Your task to perform on an android device: turn on data saver in the chrome app Image 0: 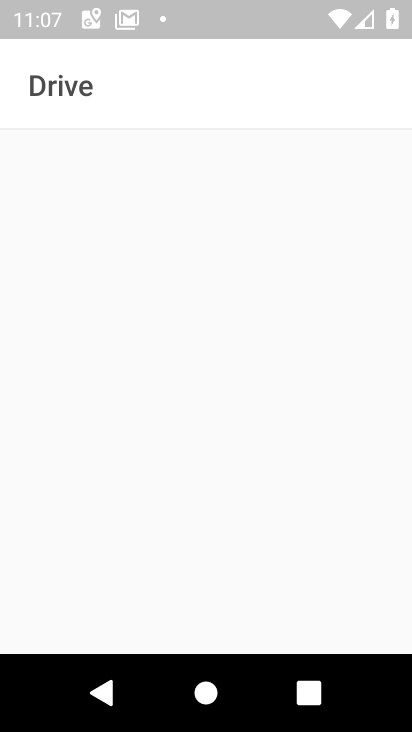
Step 0: press home button
Your task to perform on an android device: turn on data saver in the chrome app Image 1: 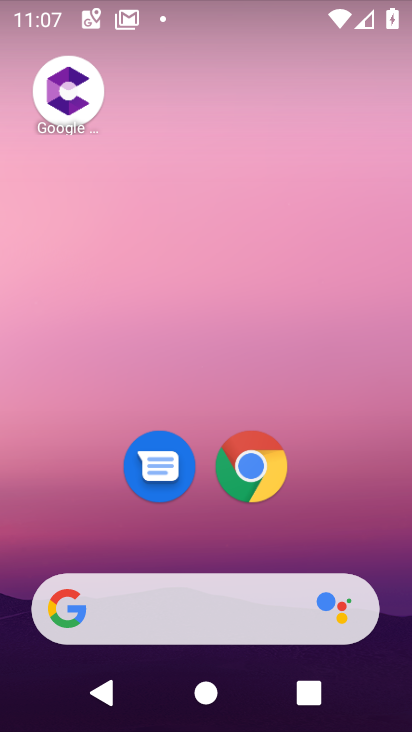
Step 1: click (255, 491)
Your task to perform on an android device: turn on data saver in the chrome app Image 2: 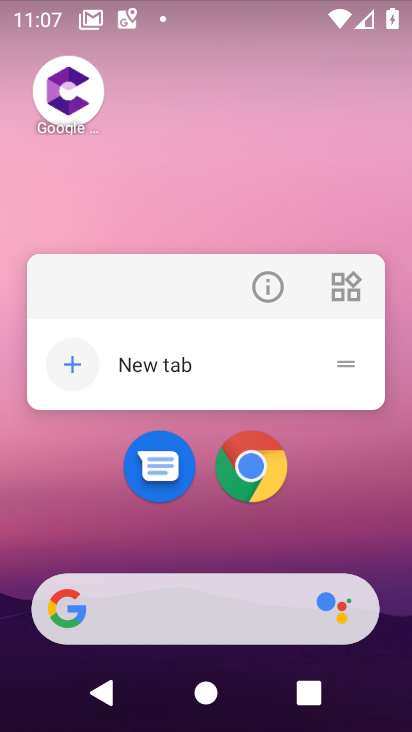
Step 2: click (286, 497)
Your task to perform on an android device: turn on data saver in the chrome app Image 3: 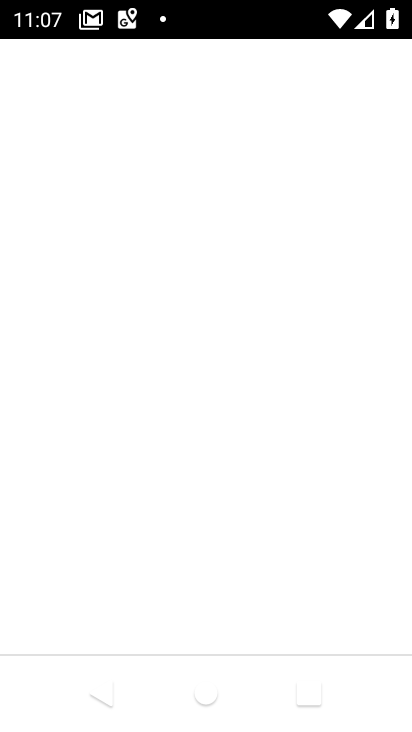
Step 3: click (244, 471)
Your task to perform on an android device: turn on data saver in the chrome app Image 4: 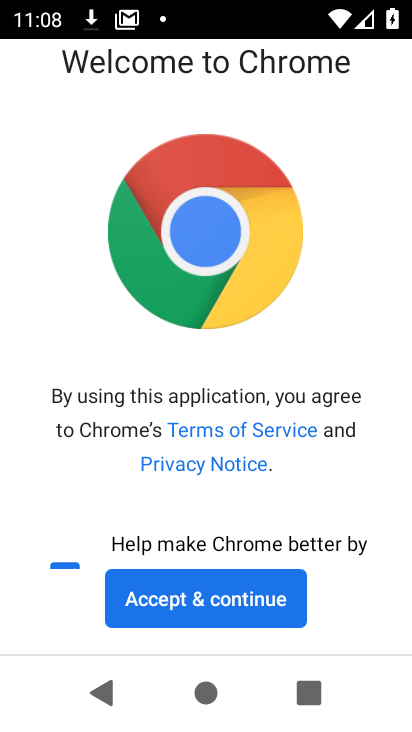
Step 4: click (168, 605)
Your task to perform on an android device: turn on data saver in the chrome app Image 5: 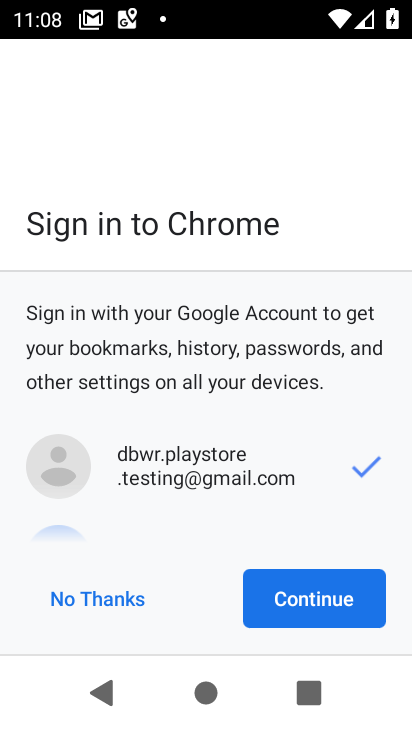
Step 5: click (273, 591)
Your task to perform on an android device: turn on data saver in the chrome app Image 6: 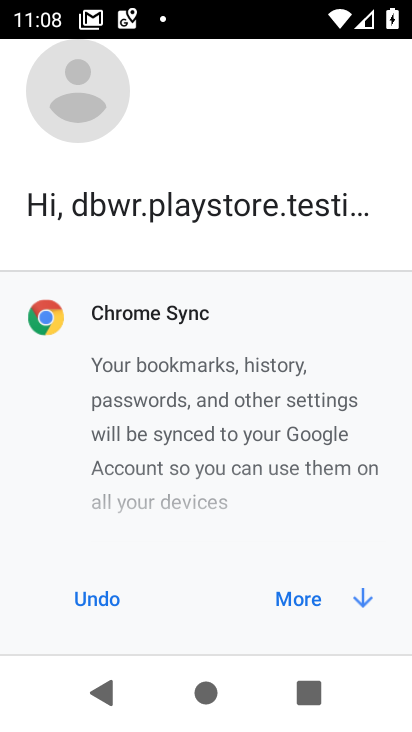
Step 6: click (281, 599)
Your task to perform on an android device: turn on data saver in the chrome app Image 7: 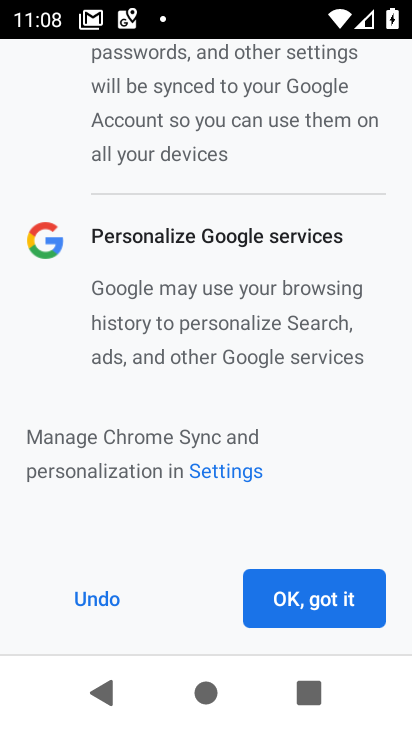
Step 7: click (284, 593)
Your task to perform on an android device: turn on data saver in the chrome app Image 8: 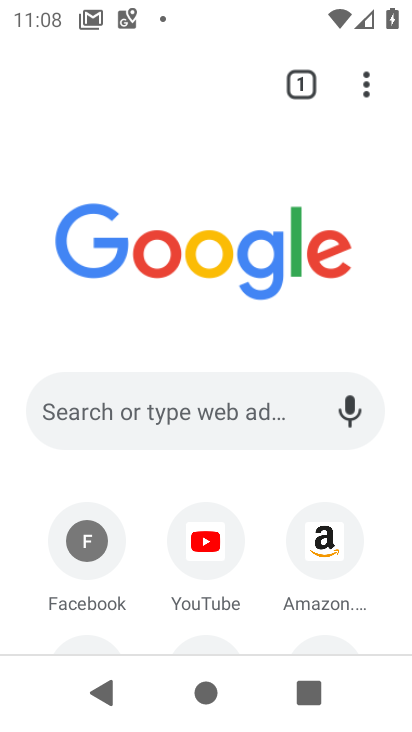
Step 8: click (361, 91)
Your task to perform on an android device: turn on data saver in the chrome app Image 9: 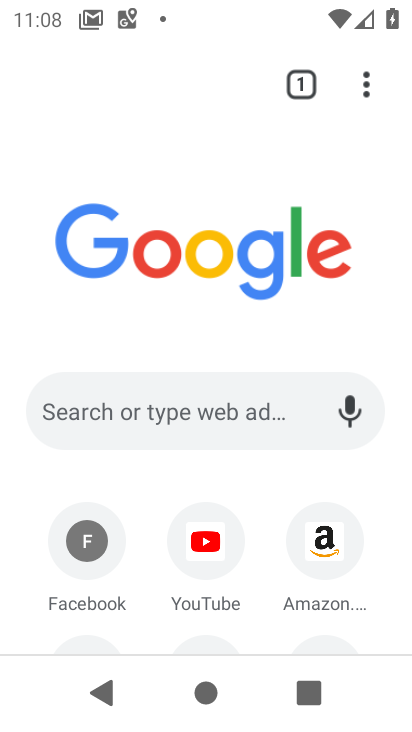
Step 9: click (370, 91)
Your task to perform on an android device: turn on data saver in the chrome app Image 10: 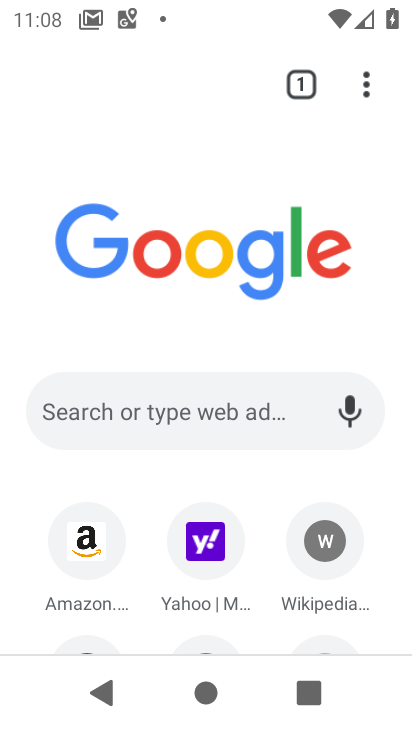
Step 10: click (367, 92)
Your task to perform on an android device: turn on data saver in the chrome app Image 11: 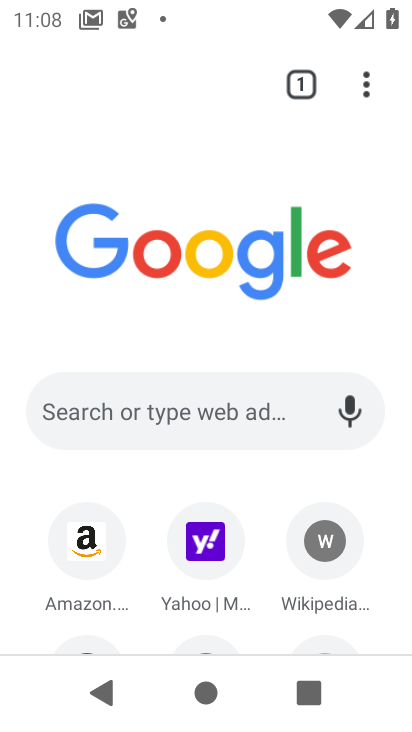
Step 11: click (363, 74)
Your task to perform on an android device: turn on data saver in the chrome app Image 12: 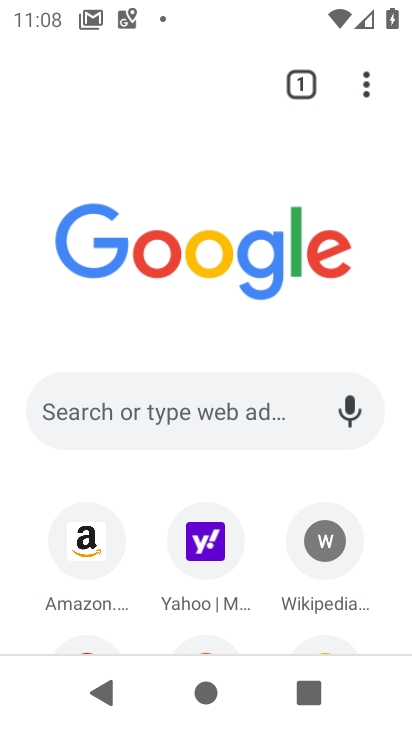
Step 12: click (371, 82)
Your task to perform on an android device: turn on data saver in the chrome app Image 13: 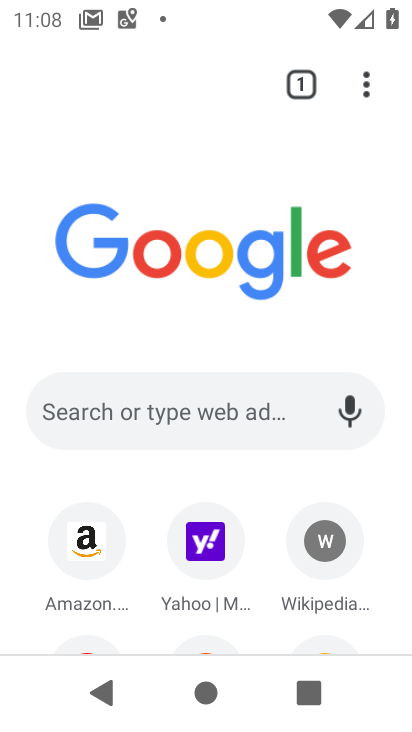
Step 13: click (362, 88)
Your task to perform on an android device: turn on data saver in the chrome app Image 14: 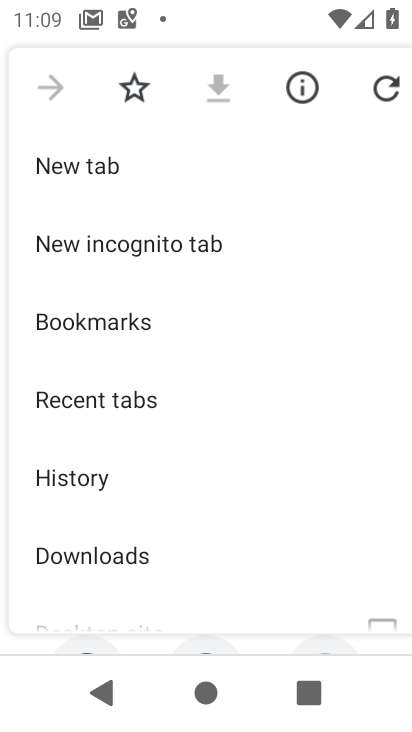
Step 14: drag from (230, 499) to (179, 213)
Your task to perform on an android device: turn on data saver in the chrome app Image 15: 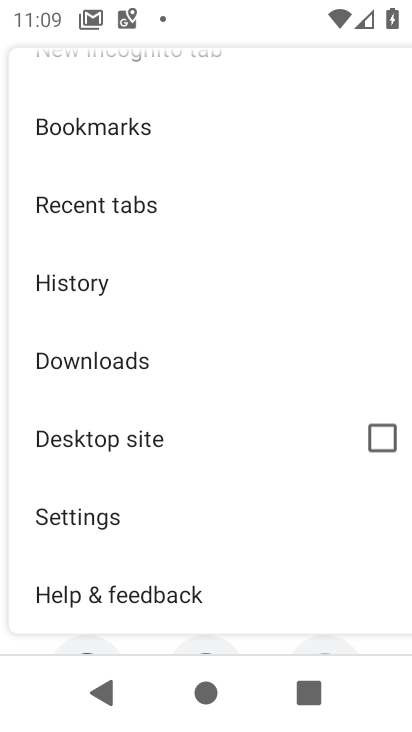
Step 15: click (96, 503)
Your task to perform on an android device: turn on data saver in the chrome app Image 16: 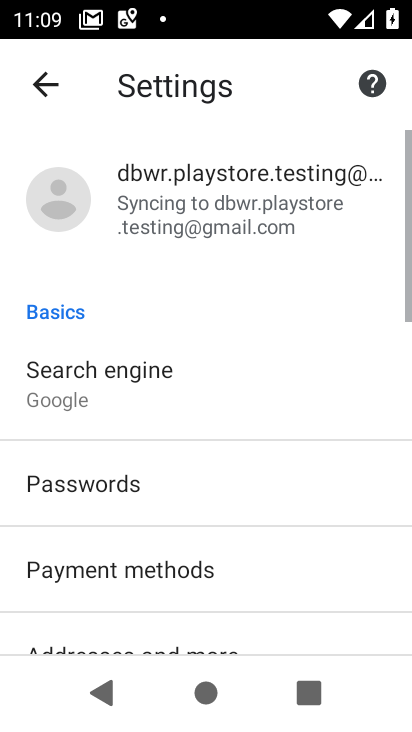
Step 16: drag from (227, 520) to (143, 124)
Your task to perform on an android device: turn on data saver in the chrome app Image 17: 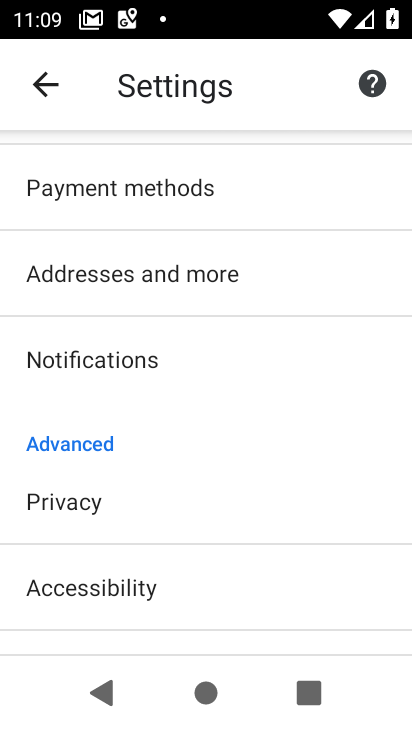
Step 17: drag from (246, 582) to (224, 257)
Your task to perform on an android device: turn on data saver in the chrome app Image 18: 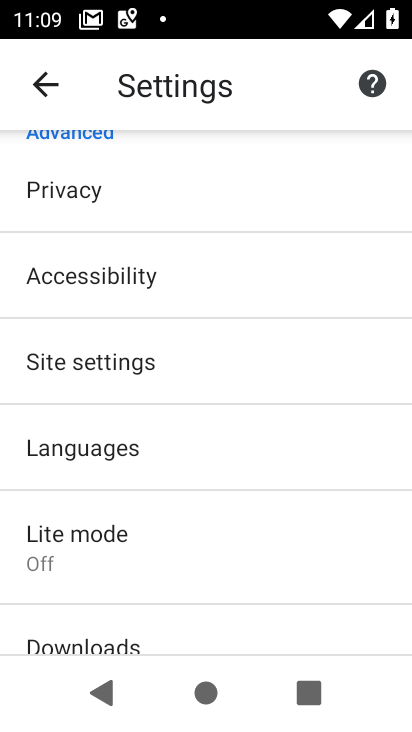
Step 18: click (111, 533)
Your task to perform on an android device: turn on data saver in the chrome app Image 19: 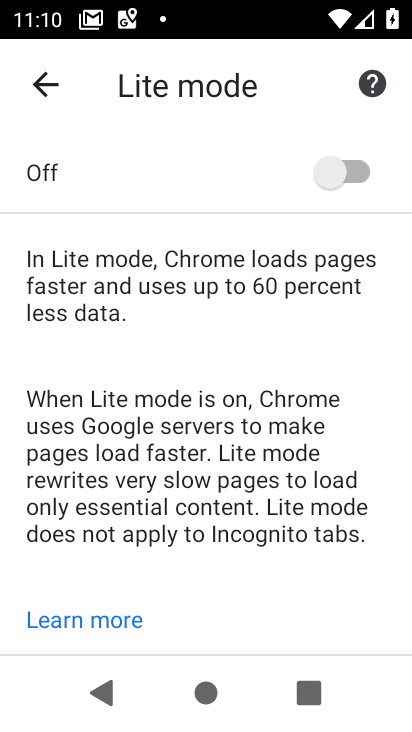
Step 19: click (363, 170)
Your task to perform on an android device: turn on data saver in the chrome app Image 20: 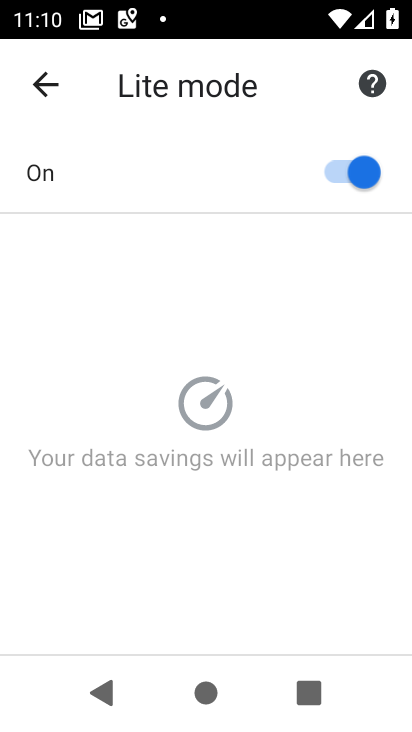
Step 20: task complete